Your task to perform on an android device: Open the calendar and show me this week's events Image 0: 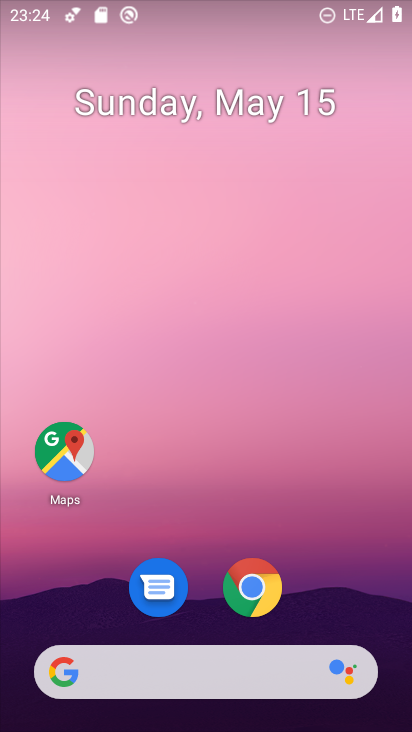
Step 0: drag from (213, 603) to (197, 220)
Your task to perform on an android device: Open the calendar and show me this week's events Image 1: 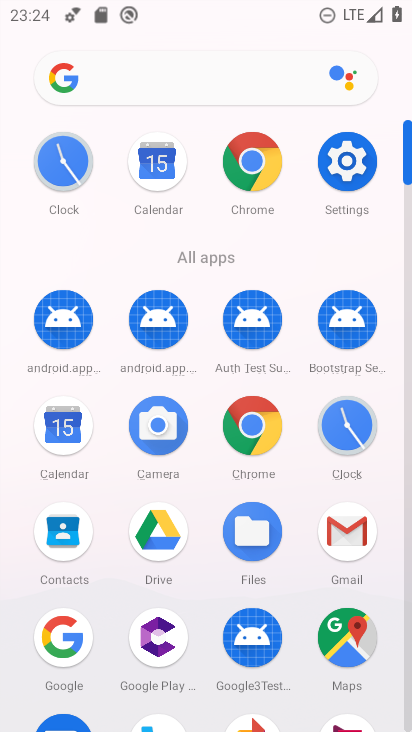
Step 1: click (57, 423)
Your task to perform on an android device: Open the calendar and show me this week's events Image 2: 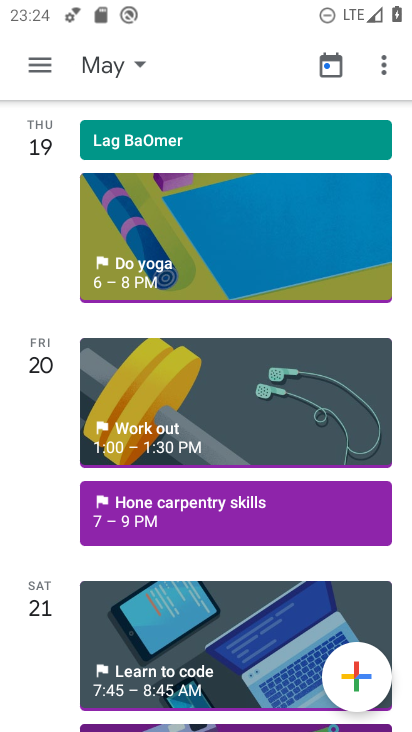
Step 2: click (124, 73)
Your task to perform on an android device: Open the calendar and show me this week's events Image 3: 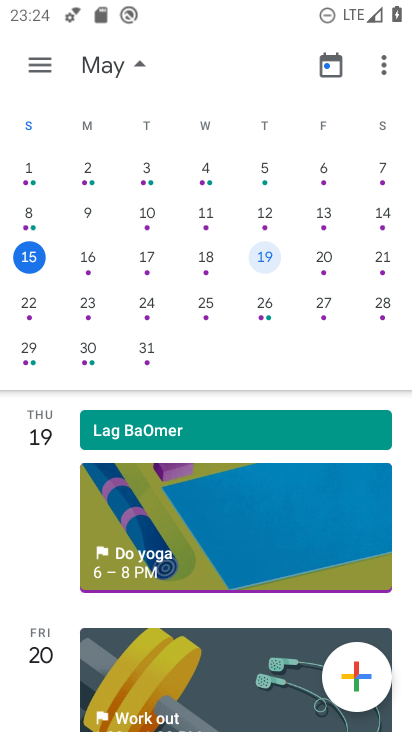
Step 3: click (89, 258)
Your task to perform on an android device: Open the calendar and show me this week's events Image 4: 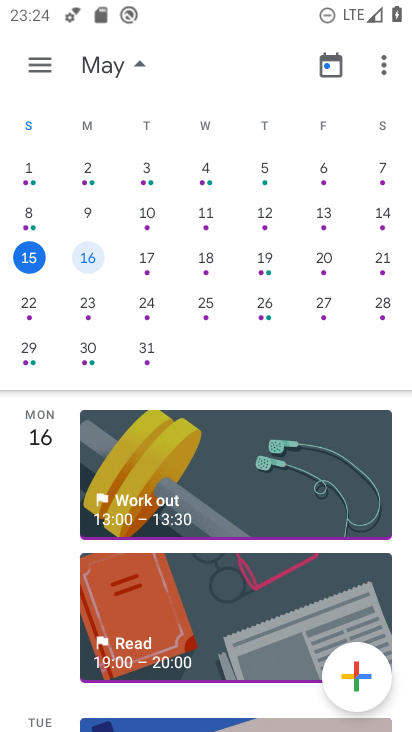
Step 4: click (129, 255)
Your task to perform on an android device: Open the calendar and show me this week's events Image 5: 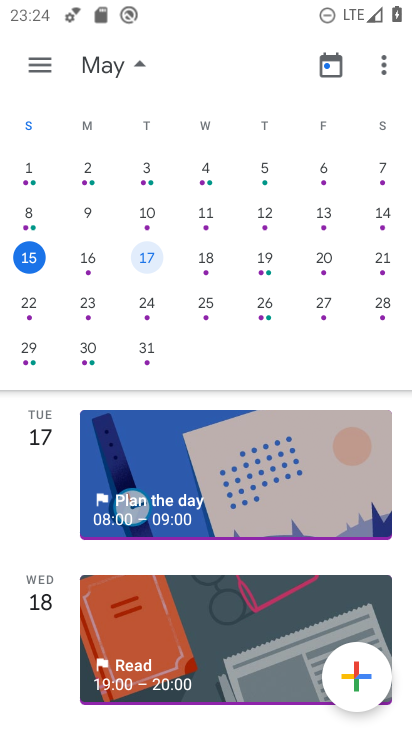
Step 5: click (82, 260)
Your task to perform on an android device: Open the calendar and show me this week's events Image 6: 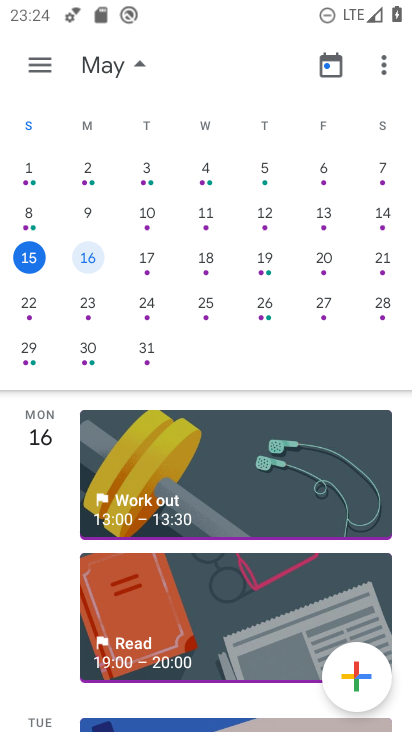
Step 6: click (140, 247)
Your task to perform on an android device: Open the calendar and show me this week's events Image 7: 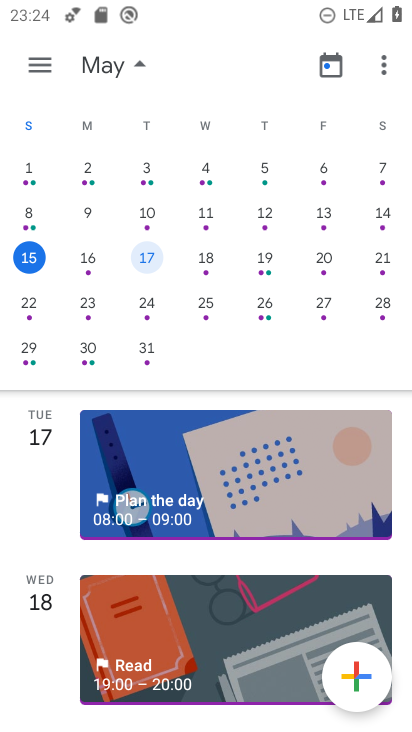
Step 7: click (200, 260)
Your task to perform on an android device: Open the calendar and show me this week's events Image 8: 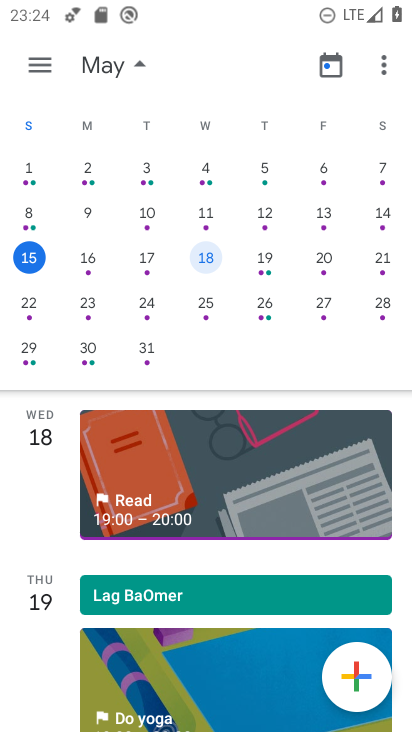
Step 8: click (269, 267)
Your task to perform on an android device: Open the calendar and show me this week's events Image 9: 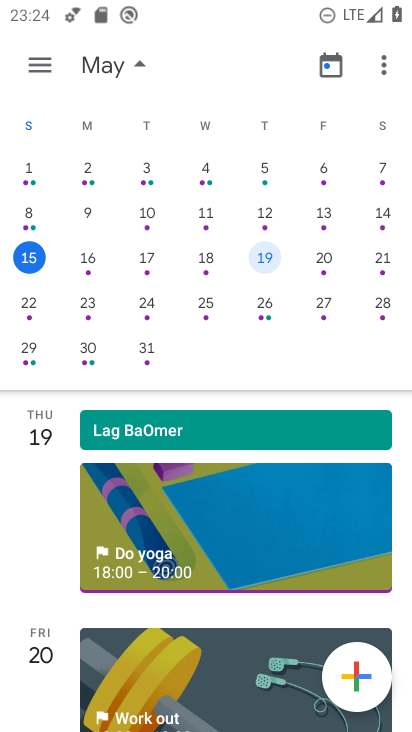
Step 9: task complete